Your task to perform on an android device: turn off wifi Image 0: 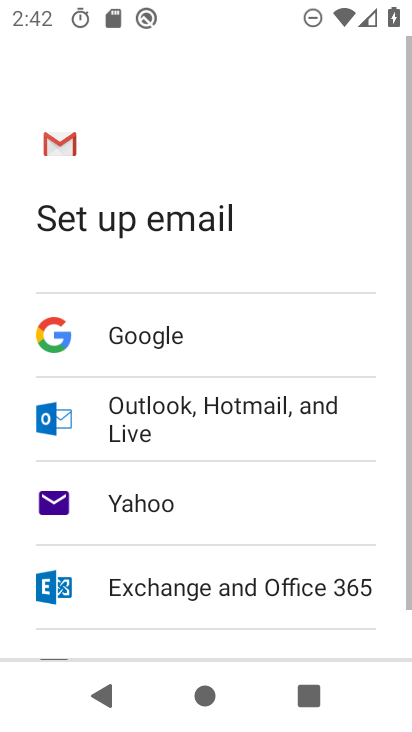
Step 0: press home button
Your task to perform on an android device: turn off wifi Image 1: 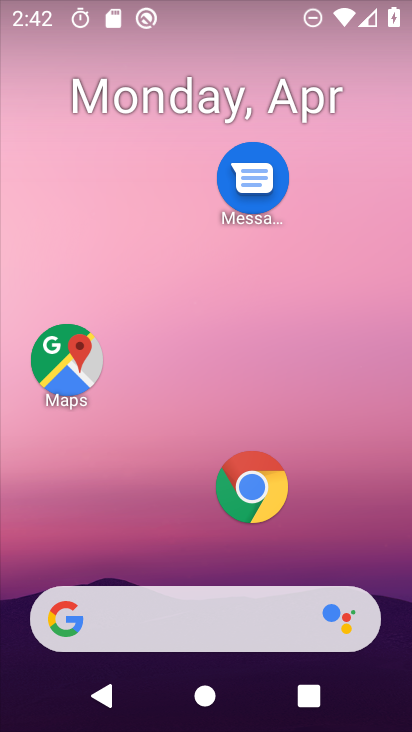
Step 1: drag from (306, 454) to (289, 11)
Your task to perform on an android device: turn off wifi Image 2: 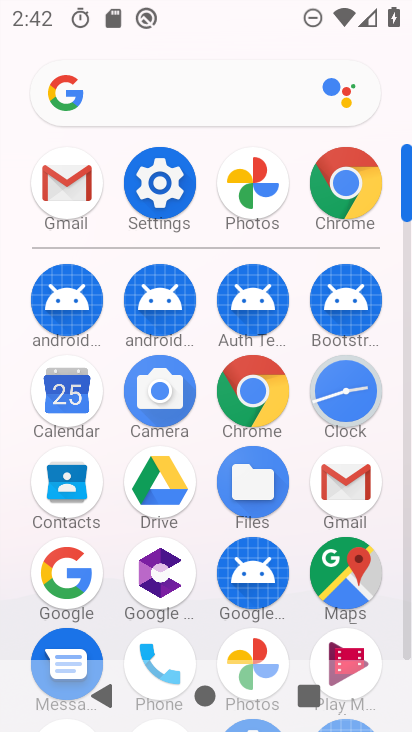
Step 2: click (155, 201)
Your task to perform on an android device: turn off wifi Image 3: 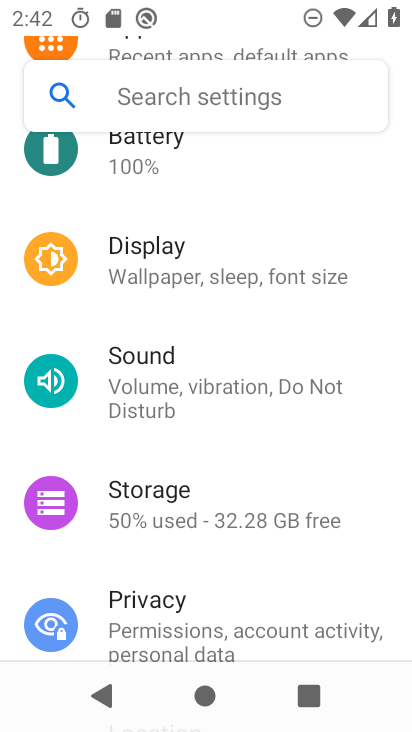
Step 3: drag from (177, 151) to (197, 587)
Your task to perform on an android device: turn off wifi Image 4: 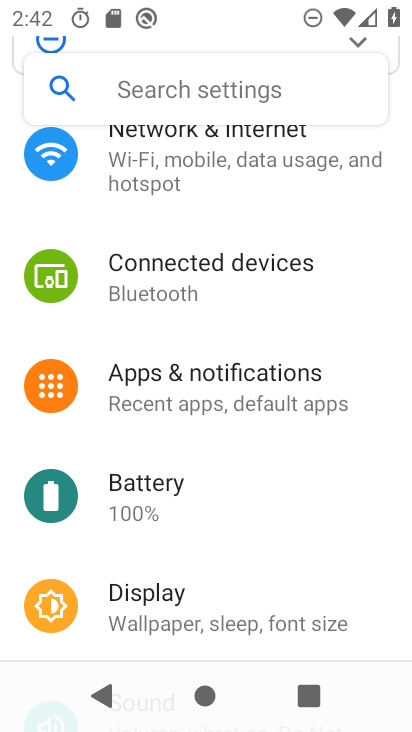
Step 4: click (166, 162)
Your task to perform on an android device: turn off wifi Image 5: 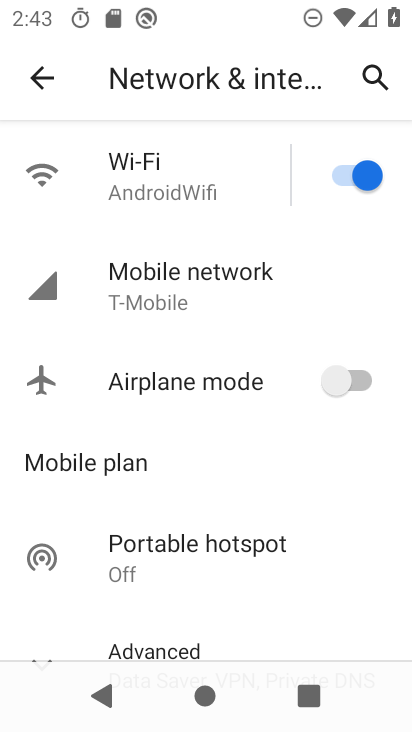
Step 5: click (337, 174)
Your task to perform on an android device: turn off wifi Image 6: 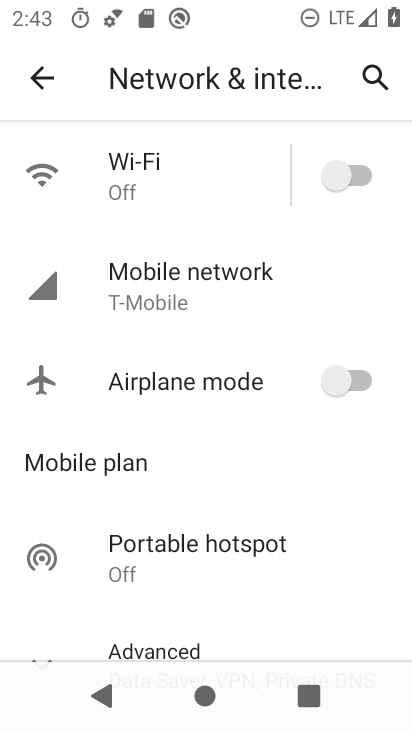
Step 6: task complete